Your task to perform on an android device: star an email in the gmail app Image 0: 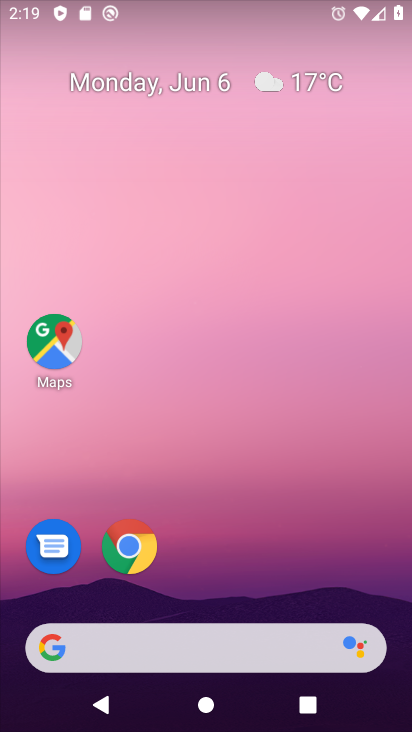
Step 0: click (136, 535)
Your task to perform on an android device: star an email in the gmail app Image 1: 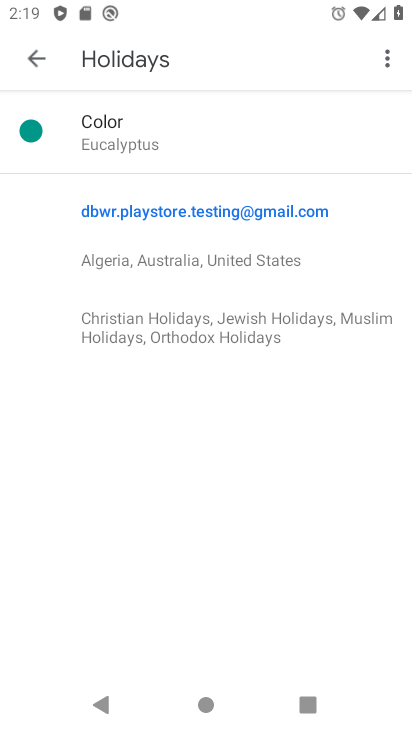
Step 1: click (31, 47)
Your task to perform on an android device: star an email in the gmail app Image 2: 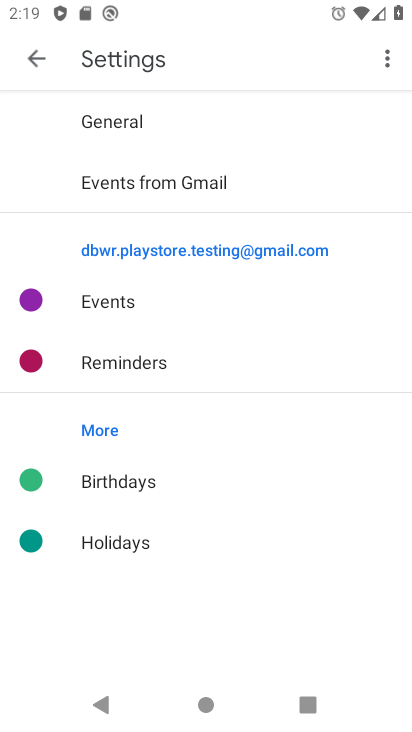
Step 2: press home button
Your task to perform on an android device: star an email in the gmail app Image 3: 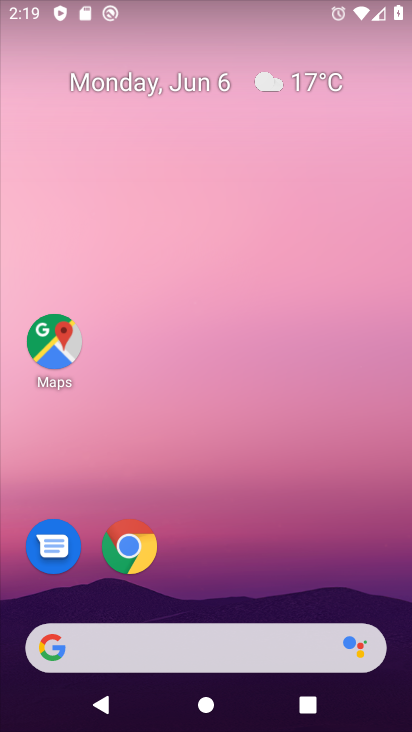
Step 3: click (113, 538)
Your task to perform on an android device: star an email in the gmail app Image 4: 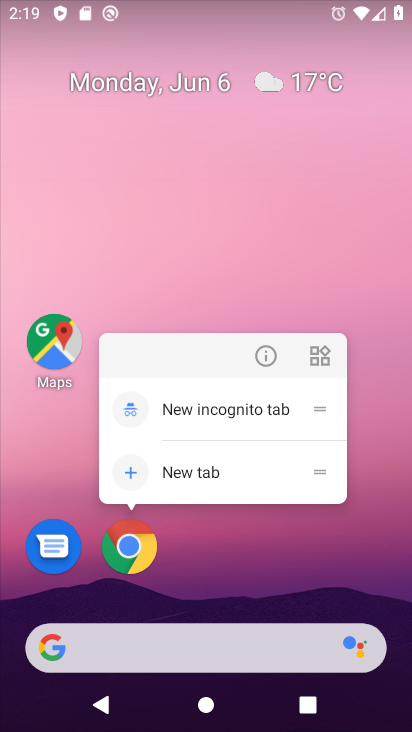
Step 4: click (114, 532)
Your task to perform on an android device: star an email in the gmail app Image 5: 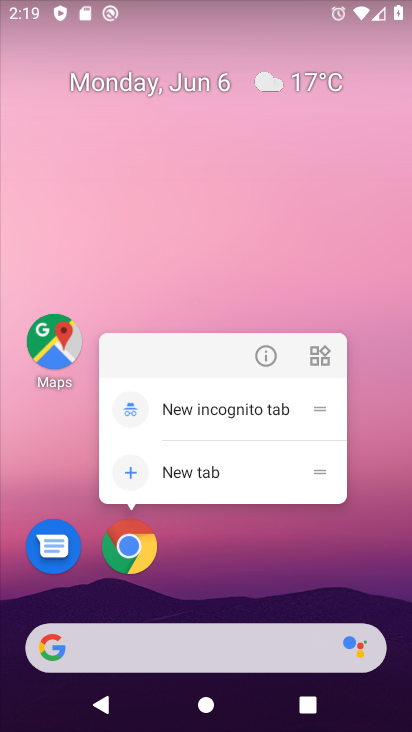
Step 5: click (124, 538)
Your task to perform on an android device: star an email in the gmail app Image 6: 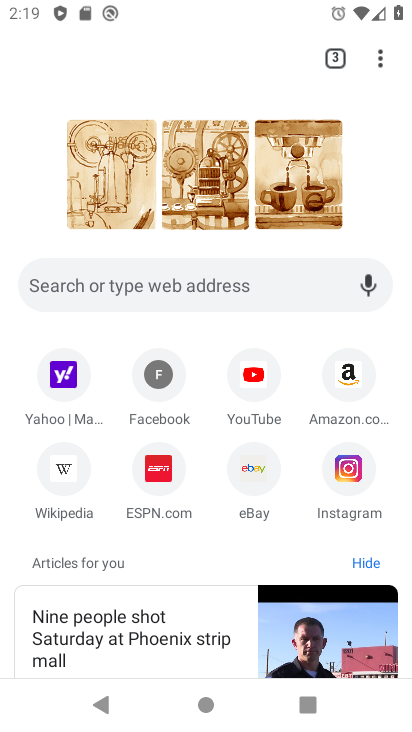
Step 6: press home button
Your task to perform on an android device: star an email in the gmail app Image 7: 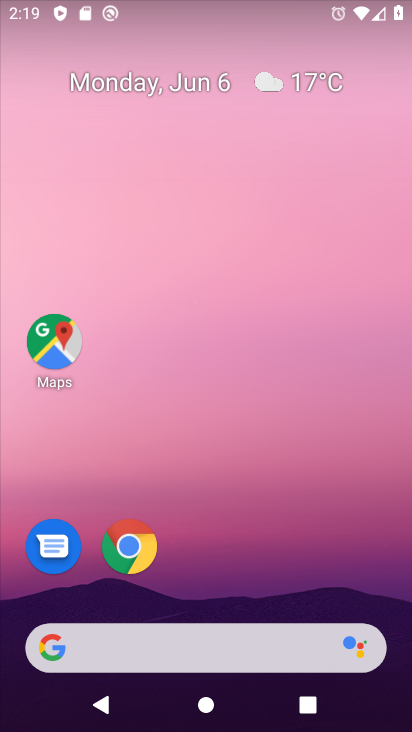
Step 7: drag from (217, 565) to (219, 214)
Your task to perform on an android device: star an email in the gmail app Image 8: 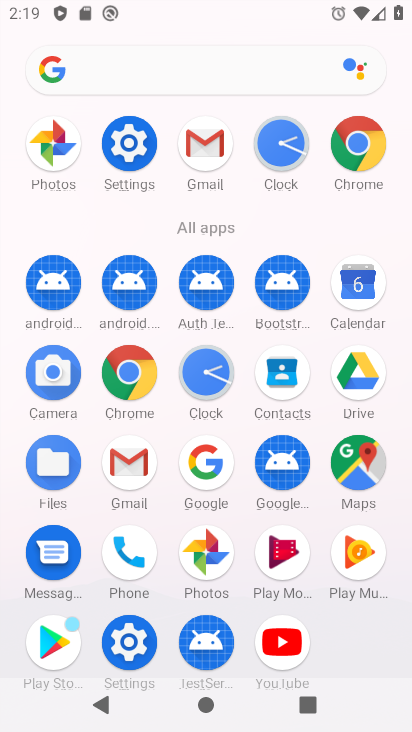
Step 8: click (120, 468)
Your task to perform on an android device: star an email in the gmail app Image 9: 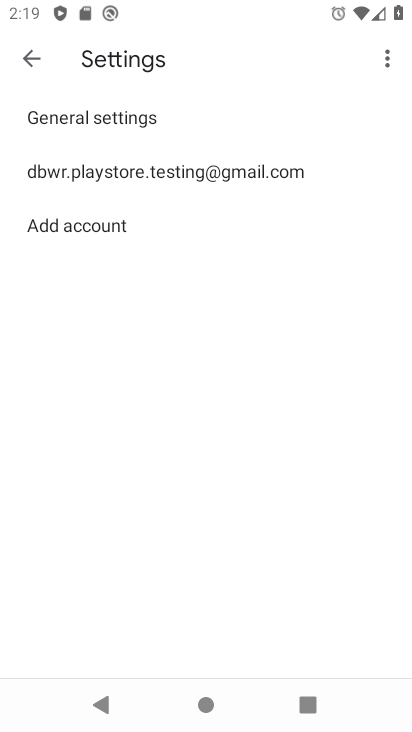
Step 9: drag from (81, 161) to (116, 544)
Your task to perform on an android device: star an email in the gmail app Image 10: 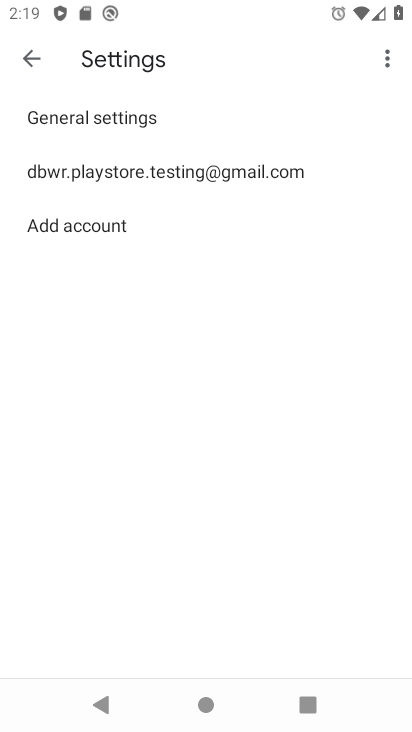
Step 10: click (36, 47)
Your task to perform on an android device: star an email in the gmail app Image 11: 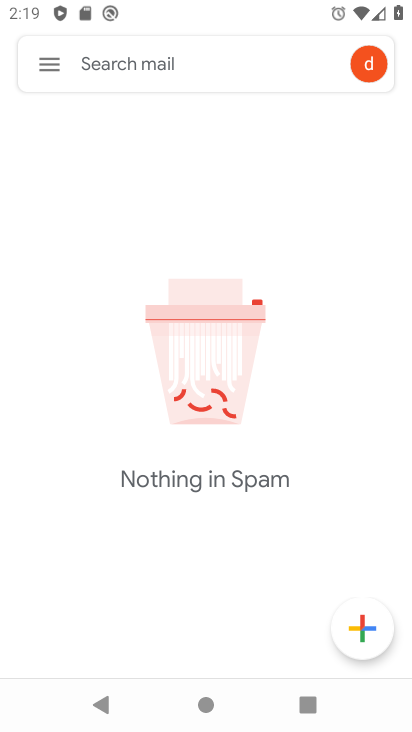
Step 11: click (42, 62)
Your task to perform on an android device: star an email in the gmail app Image 12: 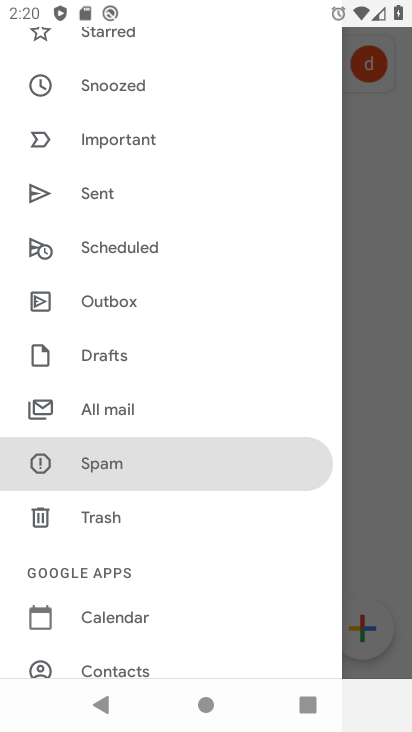
Step 12: click (142, 35)
Your task to perform on an android device: star an email in the gmail app Image 13: 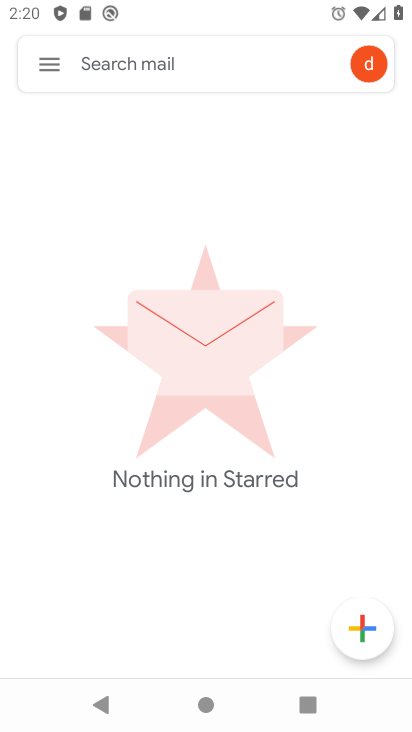
Step 13: task complete